Your task to perform on an android device: Open display settings Image 0: 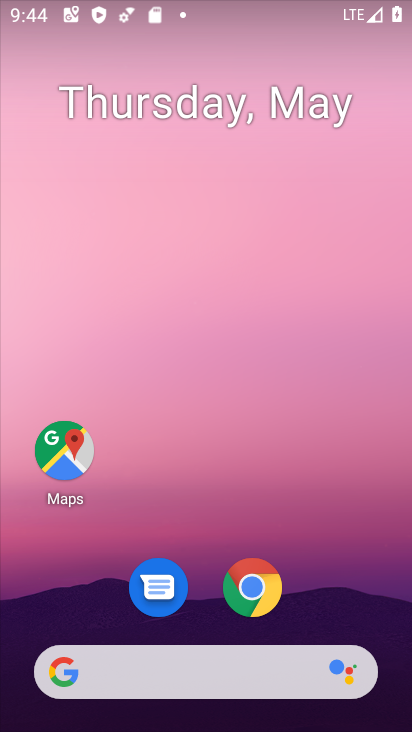
Step 0: drag from (366, 604) to (370, 2)
Your task to perform on an android device: Open display settings Image 1: 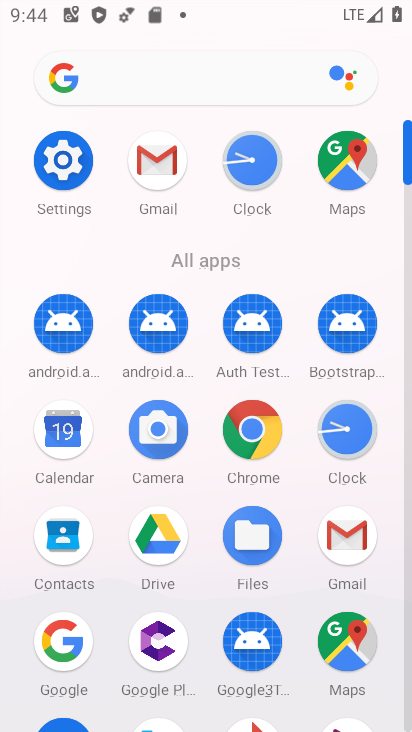
Step 1: click (56, 159)
Your task to perform on an android device: Open display settings Image 2: 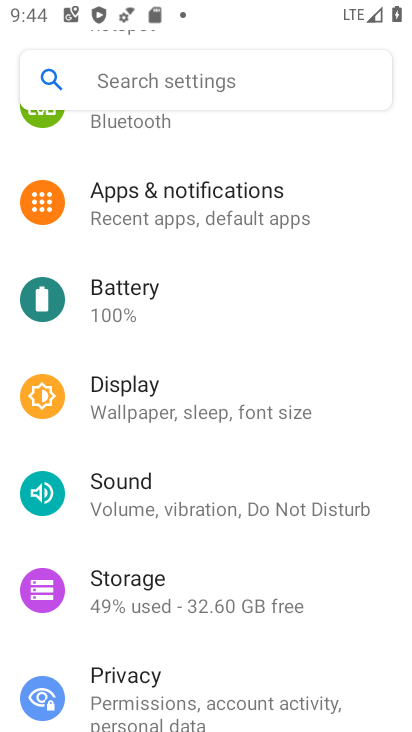
Step 2: click (108, 399)
Your task to perform on an android device: Open display settings Image 3: 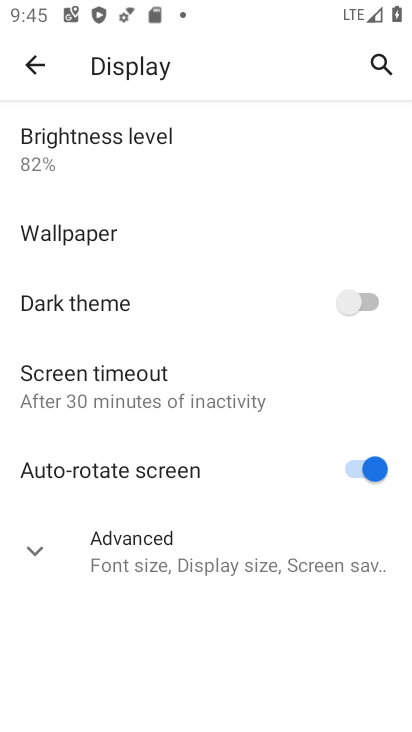
Step 3: task complete